Your task to perform on an android device: toggle notification dots Image 0: 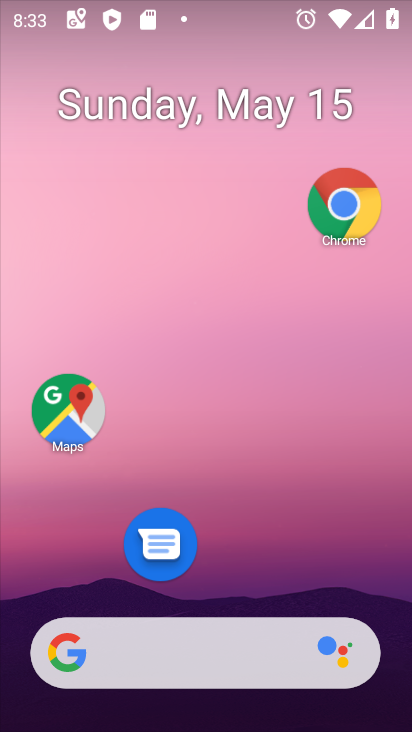
Step 0: drag from (254, 558) to (246, 64)
Your task to perform on an android device: toggle notification dots Image 1: 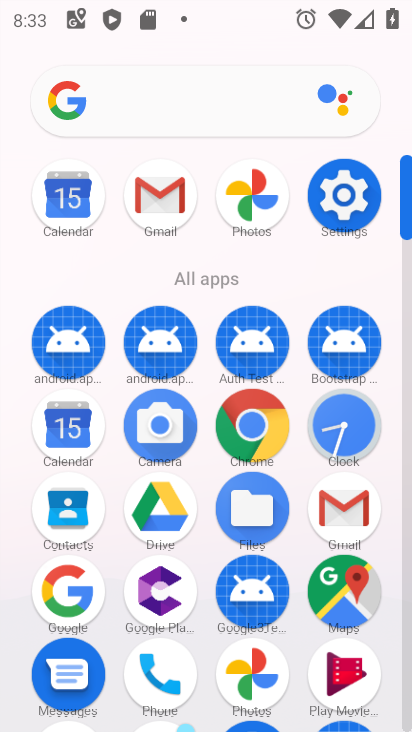
Step 1: click (349, 195)
Your task to perform on an android device: toggle notification dots Image 2: 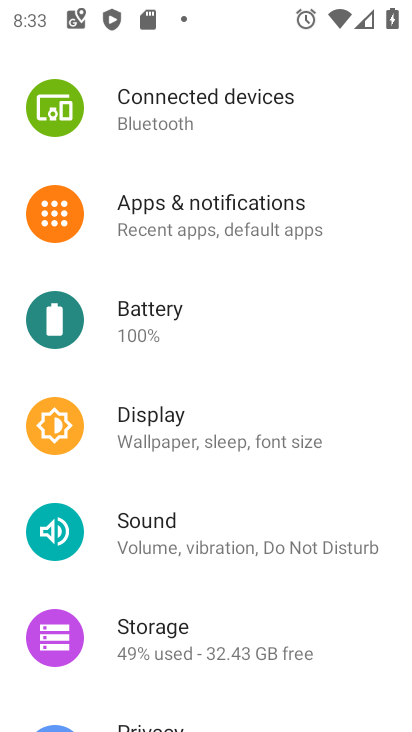
Step 2: click (206, 221)
Your task to perform on an android device: toggle notification dots Image 3: 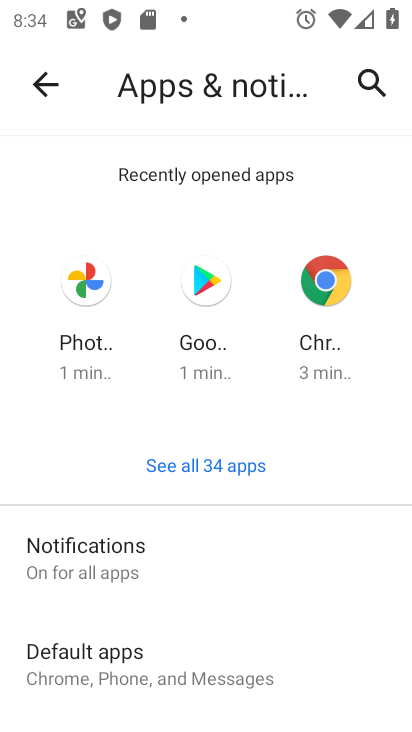
Step 3: click (130, 547)
Your task to perform on an android device: toggle notification dots Image 4: 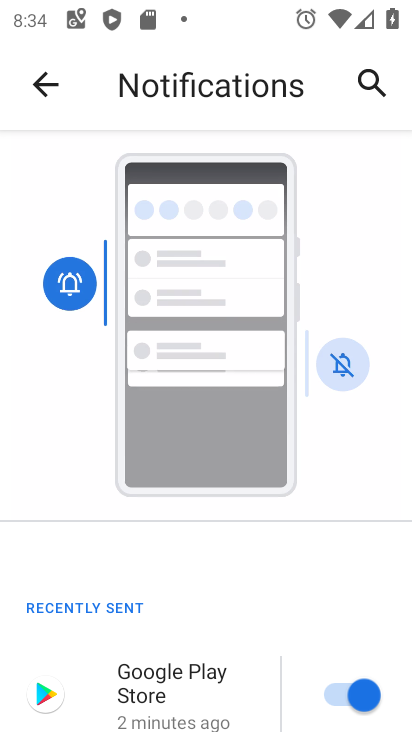
Step 4: drag from (154, 667) to (175, 288)
Your task to perform on an android device: toggle notification dots Image 5: 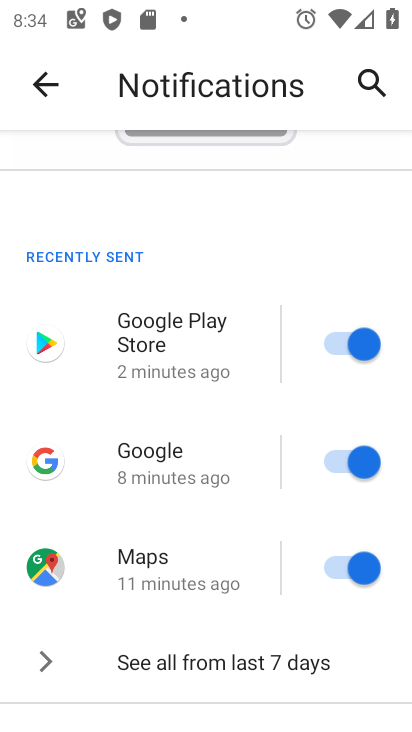
Step 5: drag from (174, 599) to (185, 357)
Your task to perform on an android device: toggle notification dots Image 6: 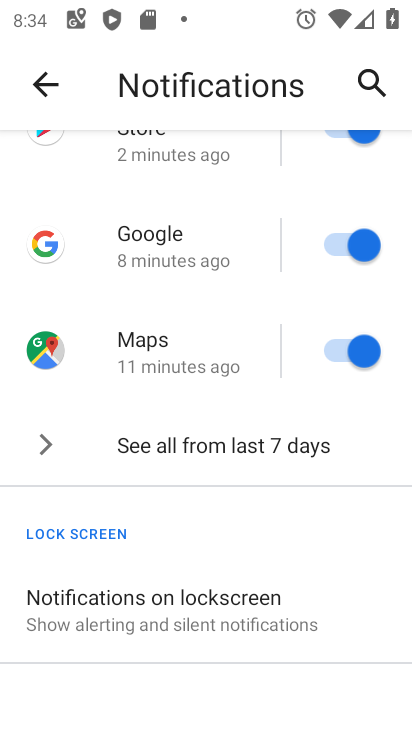
Step 6: drag from (171, 607) to (180, 379)
Your task to perform on an android device: toggle notification dots Image 7: 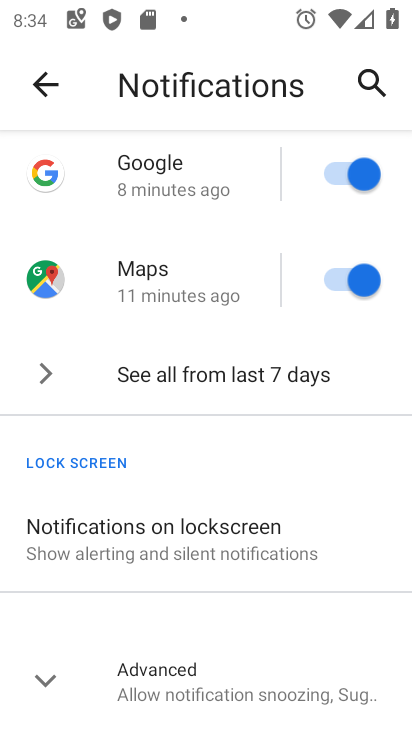
Step 7: click (176, 691)
Your task to perform on an android device: toggle notification dots Image 8: 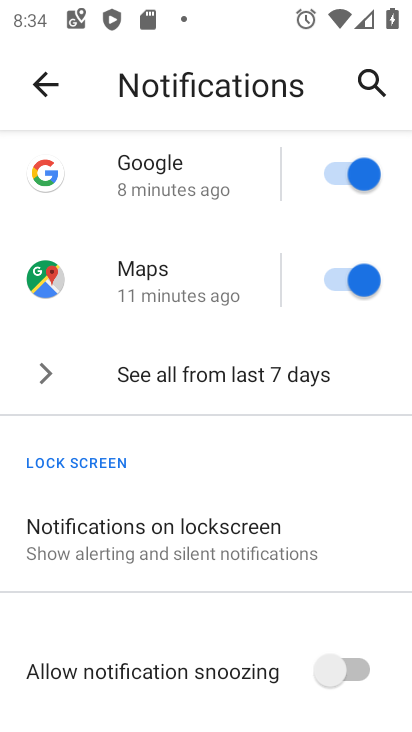
Step 8: drag from (153, 607) to (193, 289)
Your task to perform on an android device: toggle notification dots Image 9: 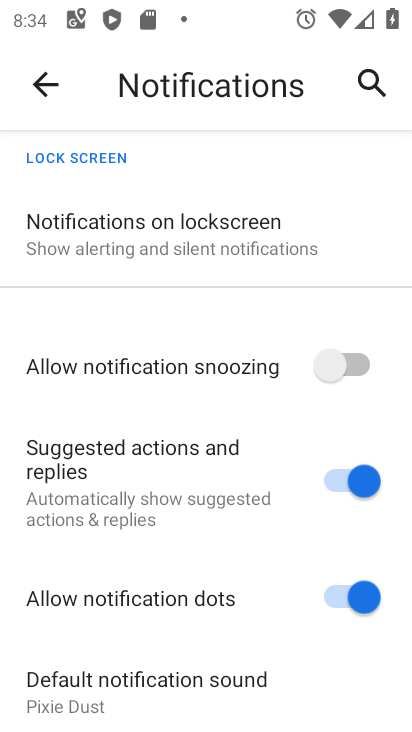
Step 9: click (320, 588)
Your task to perform on an android device: toggle notification dots Image 10: 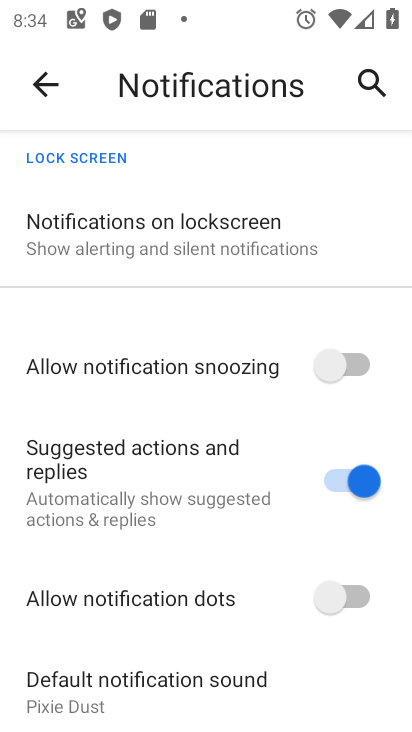
Step 10: task complete